Your task to perform on an android device: What is the news today? Image 0: 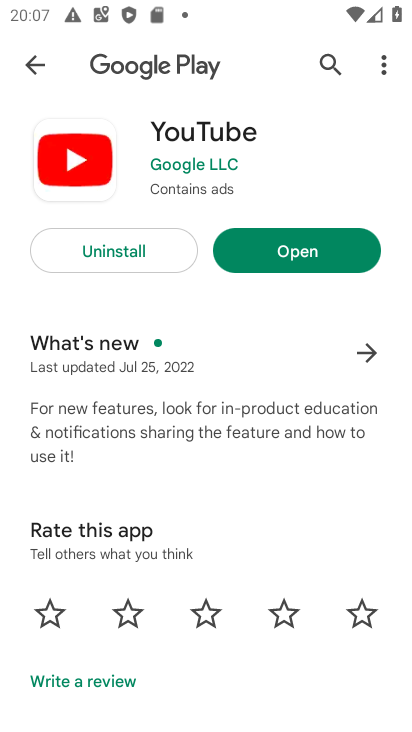
Step 0: press home button
Your task to perform on an android device: What is the news today? Image 1: 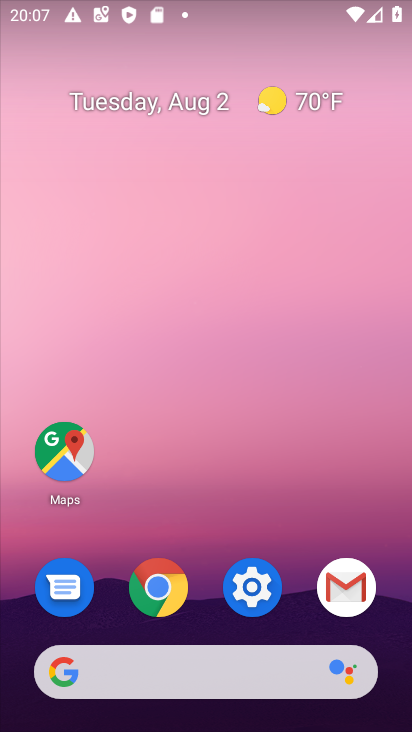
Step 1: click (186, 676)
Your task to perform on an android device: What is the news today? Image 2: 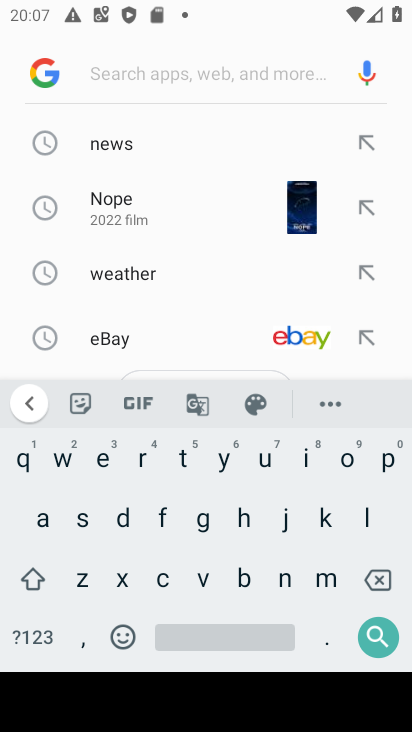
Step 2: click (132, 148)
Your task to perform on an android device: What is the news today? Image 3: 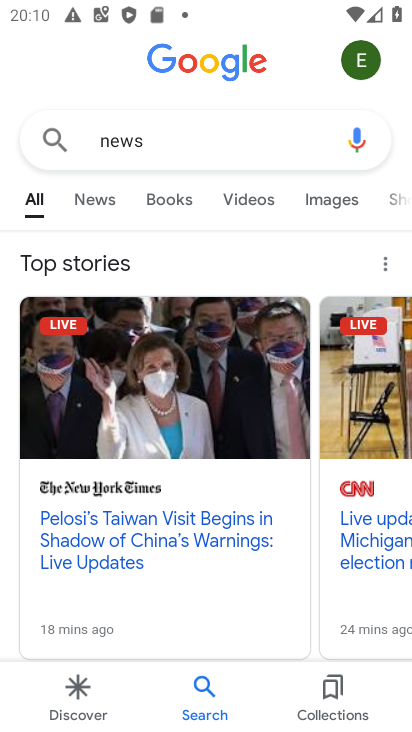
Step 3: task complete